Your task to perform on an android device: change the clock display to digital Image 0: 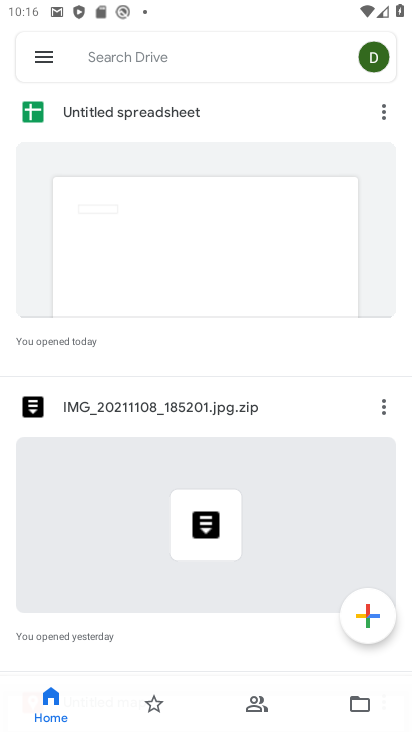
Step 0: press home button
Your task to perform on an android device: change the clock display to digital Image 1: 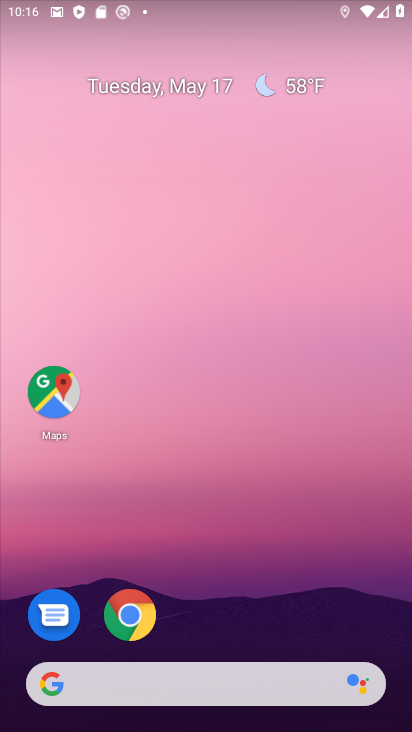
Step 1: drag from (235, 624) to (235, 226)
Your task to perform on an android device: change the clock display to digital Image 2: 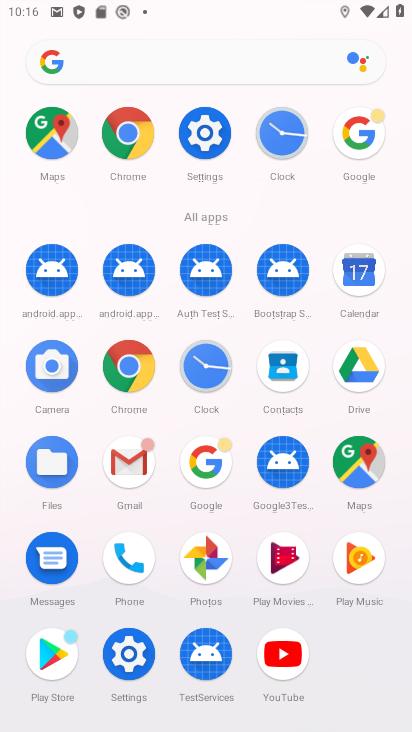
Step 2: click (267, 148)
Your task to perform on an android device: change the clock display to digital Image 3: 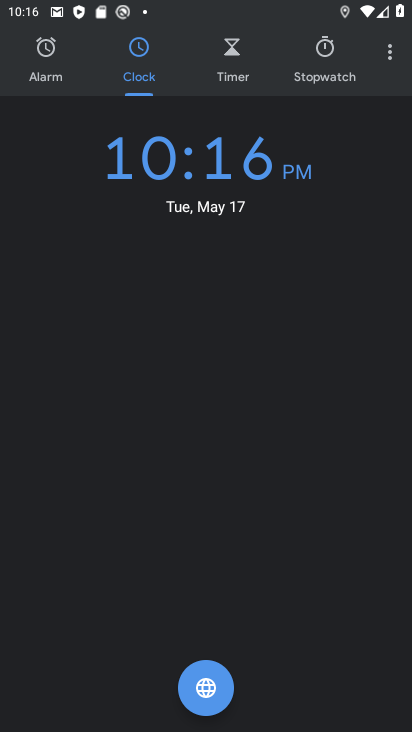
Step 3: click (376, 52)
Your task to perform on an android device: change the clock display to digital Image 4: 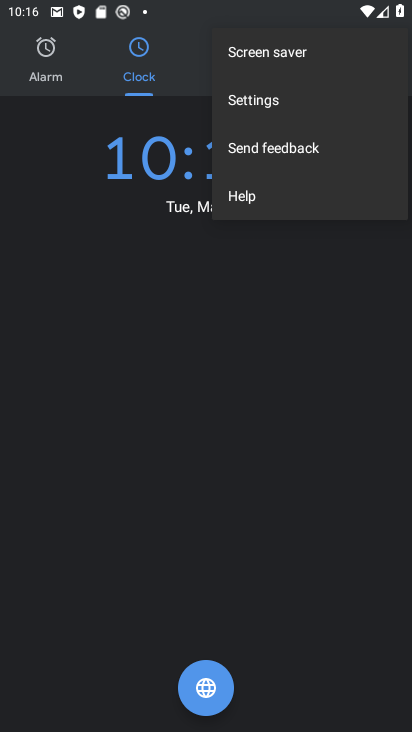
Step 4: click (338, 92)
Your task to perform on an android device: change the clock display to digital Image 5: 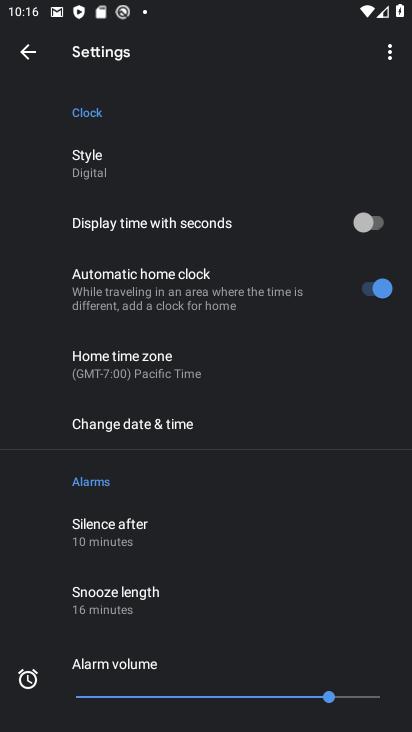
Step 5: click (157, 169)
Your task to perform on an android device: change the clock display to digital Image 6: 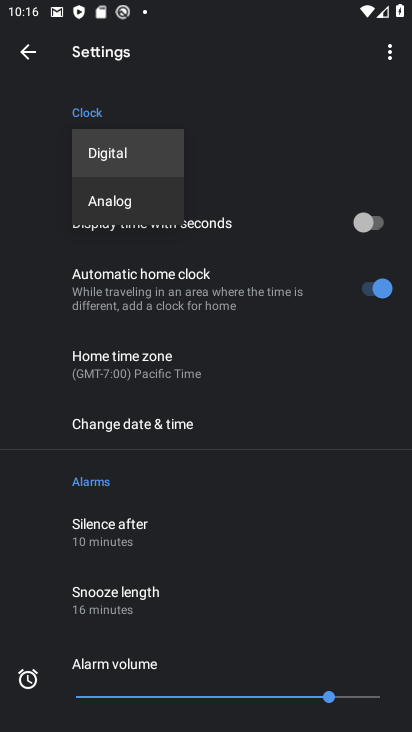
Step 6: task complete